Your task to perform on an android device: Go to Maps Image 0: 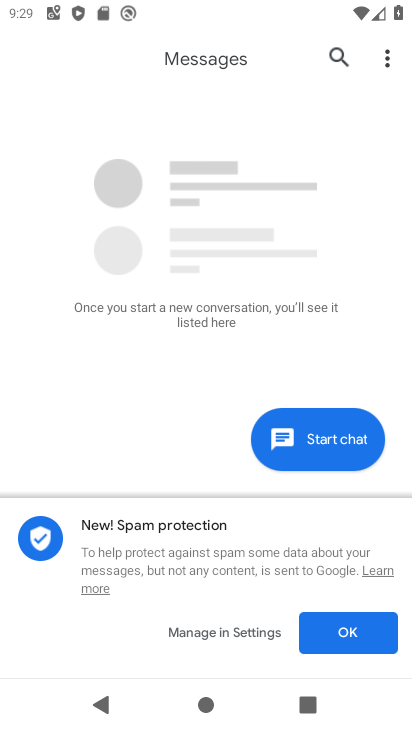
Step 0: press home button
Your task to perform on an android device: Go to Maps Image 1: 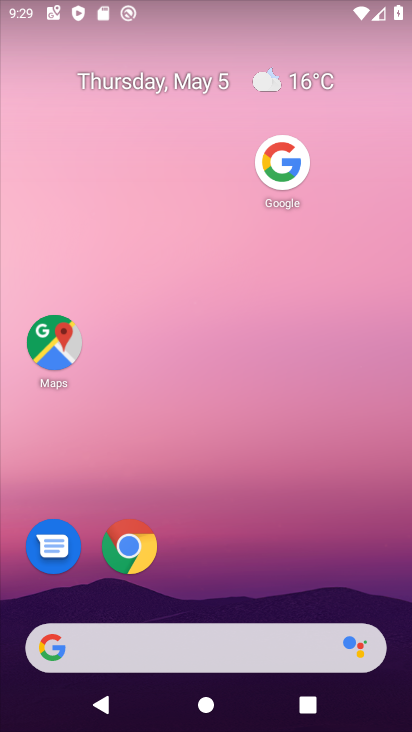
Step 1: click (60, 349)
Your task to perform on an android device: Go to Maps Image 2: 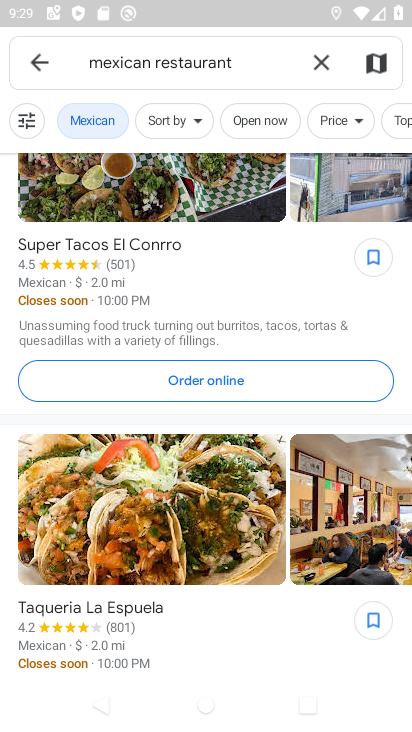
Step 2: click (41, 57)
Your task to perform on an android device: Go to Maps Image 3: 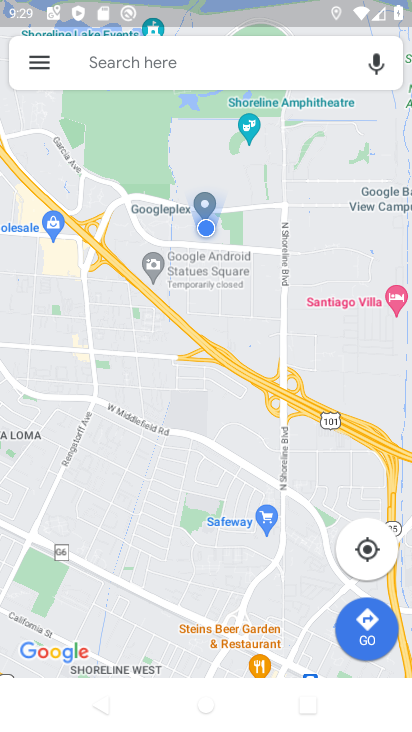
Step 3: task complete